Your task to perform on an android device: toggle priority inbox in the gmail app Image 0: 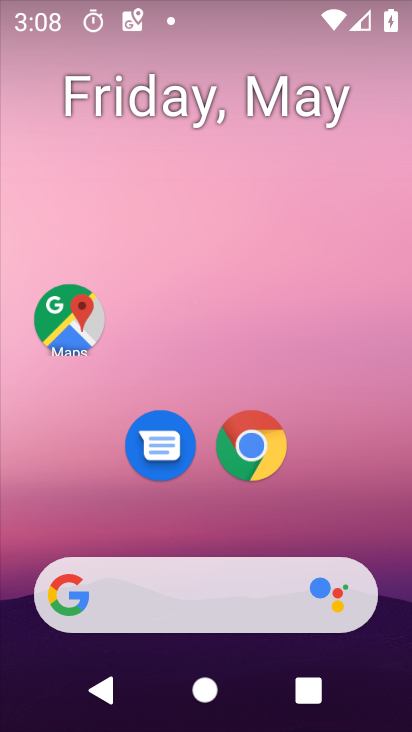
Step 0: drag from (220, 592) to (321, 206)
Your task to perform on an android device: toggle priority inbox in the gmail app Image 1: 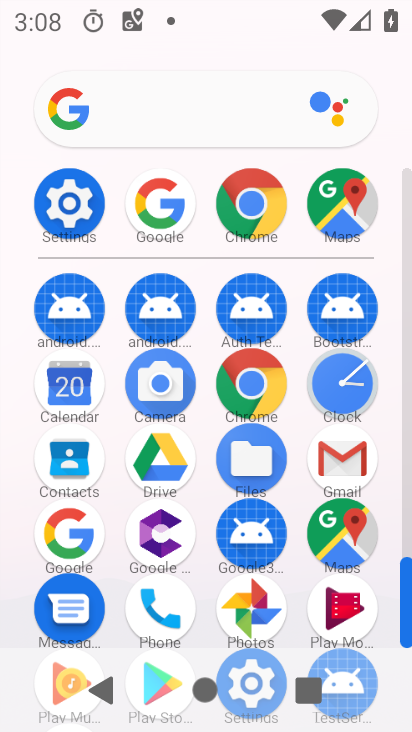
Step 1: click (340, 474)
Your task to perform on an android device: toggle priority inbox in the gmail app Image 2: 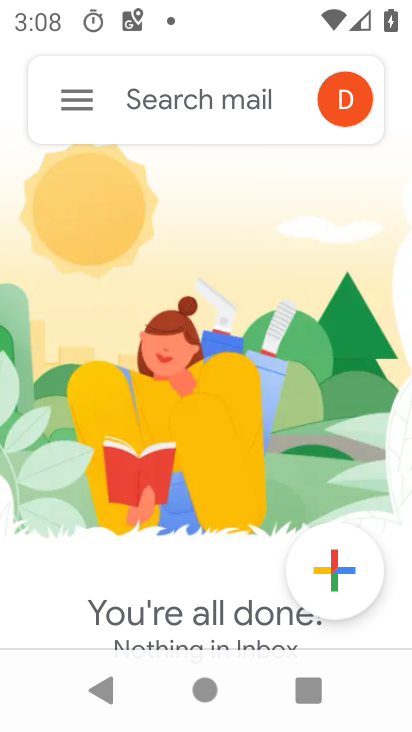
Step 2: click (70, 110)
Your task to perform on an android device: toggle priority inbox in the gmail app Image 3: 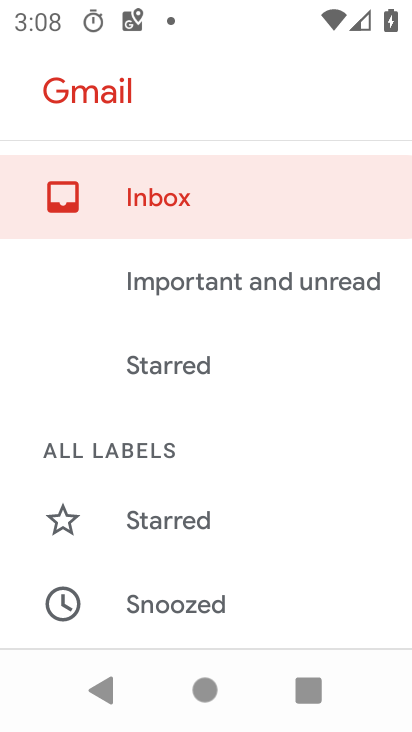
Step 3: drag from (177, 462) to (251, 131)
Your task to perform on an android device: toggle priority inbox in the gmail app Image 4: 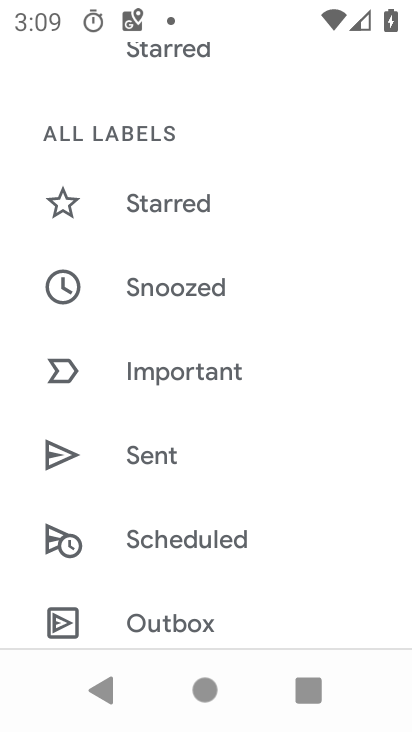
Step 4: drag from (222, 479) to (244, 185)
Your task to perform on an android device: toggle priority inbox in the gmail app Image 5: 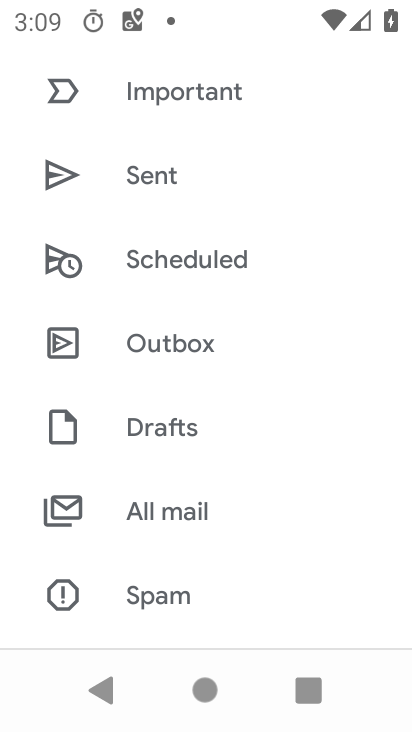
Step 5: drag from (195, 500) to (263, 179)
Your task to perform on an android device: toggle priority inbox in the gmail app Image 6: 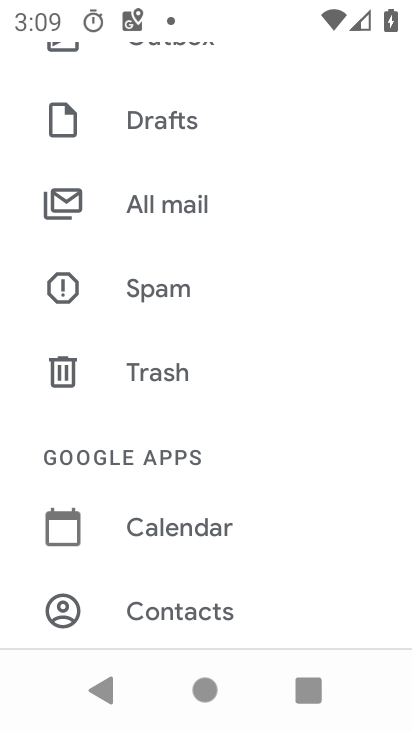
Step 6: drag from (194, 478) to (277, 104)
Your task to perform on an android device: toggle priority inbox in the gmail app Image 7: 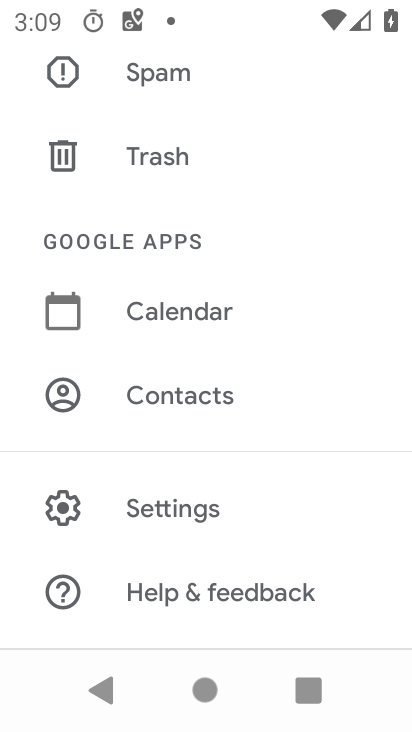
Step 7: click (187, 515)
Your task to perform on an android device: toggle priority inbox in the gmail app Image 8: 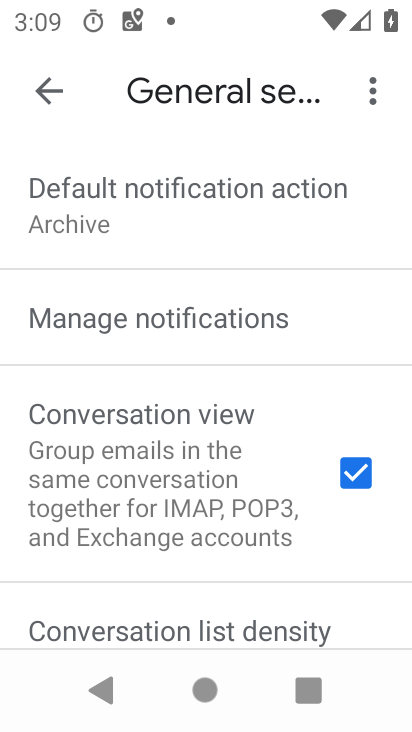
Step 8: click (38, 88)
Your task to perform on an android device: toggle priority inbox in the gmail app Image 9: 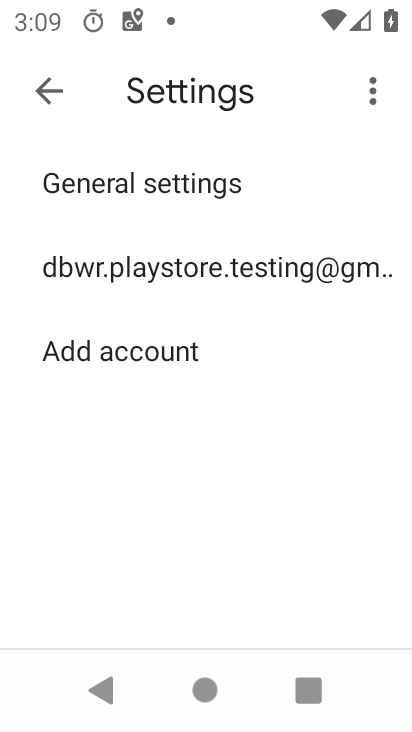
Step 9: click (154, 266)
Your task to perform on an android device: toggle priority inbox in the gmail app Image 10: 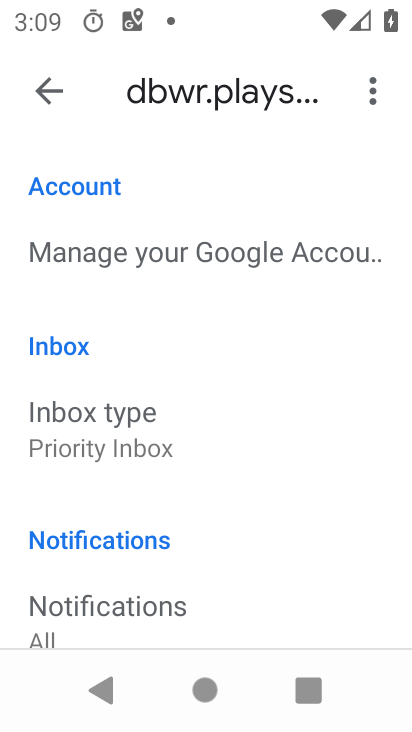
Step 10: click (160, 429)
Your task to perform on an android device: toggle priority inbox in the gmail app Image 11: 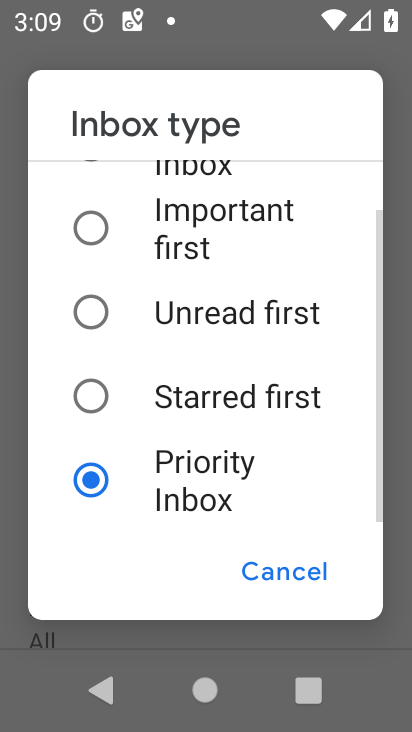
Step 11: click (90, 236)
Your task to perform on an android device: toggle priority inbox in the gmail app Image 12: 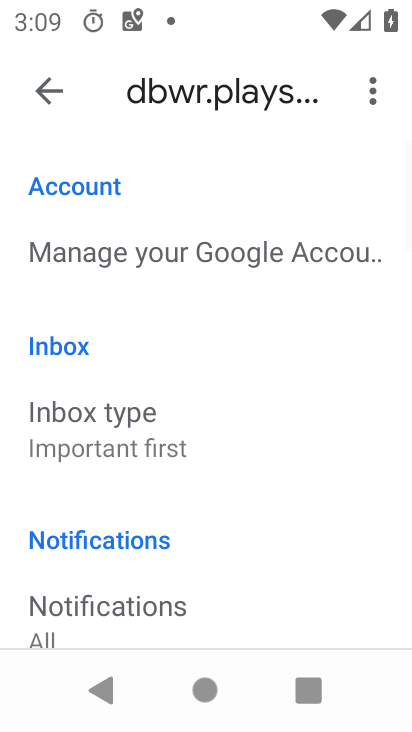
Step 12: task complete